Your task to perform on an android device: Find coffee shops on Maps Image 0: 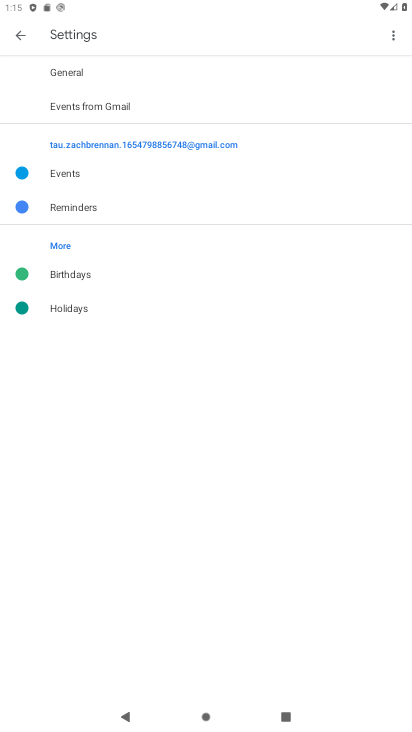
Step 0: press home button
Your task to perform on an android device: Find coffee shops on Maps Image 1: 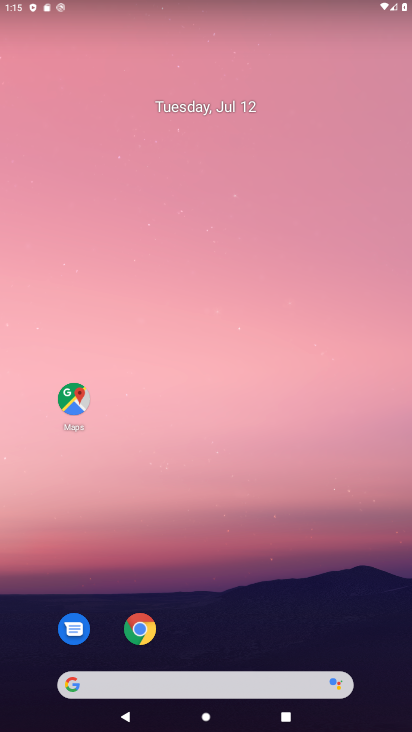
Step 1: click (69, 406)
Your task to perform on an android device: Find coffee shops on Maps Image 2: 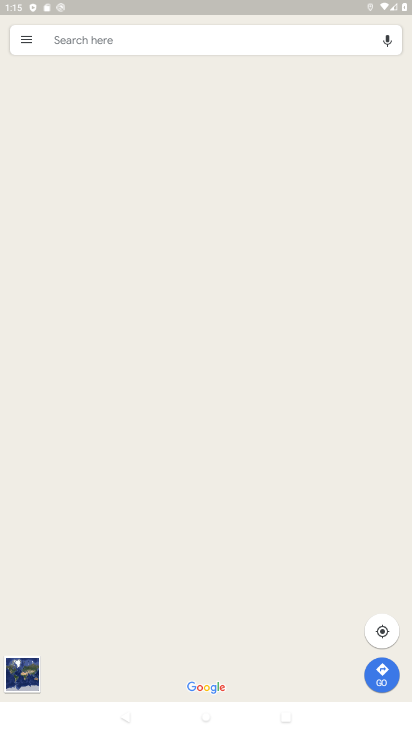
Step 2: click (226, 47)
Your task to perform on an android device: Find coffee shops on Maps Image 3: 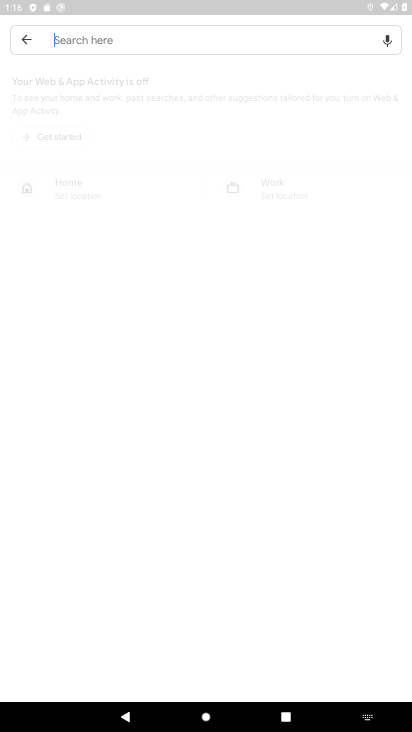
Step 3: click (26, 40)
Your task to perform on an android device: Find coffee shops on Maps Image 4: 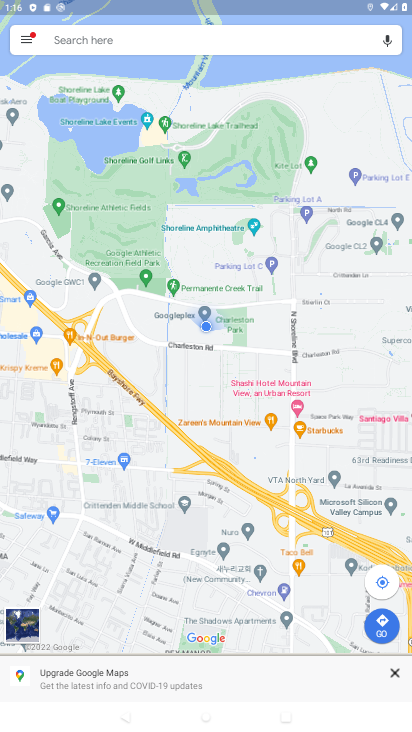
Step 4: click (137, 34)
Your task to perform on an android device: Find coffee shops on Maps Image 5: 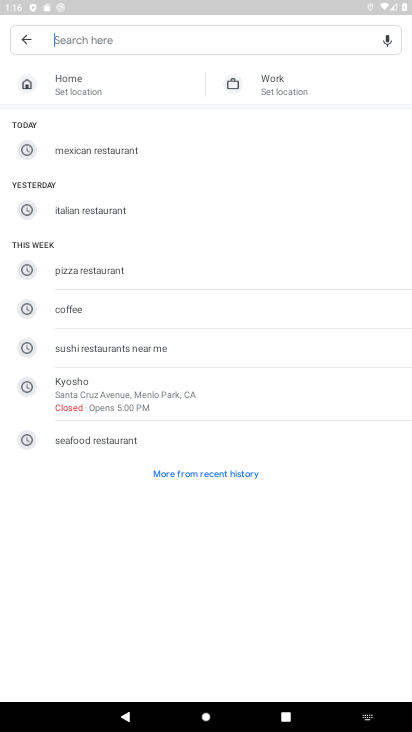
Step 5: type "coffee shops"
Your task to perform on an android device: Find coffee shops on Maps Image 6: 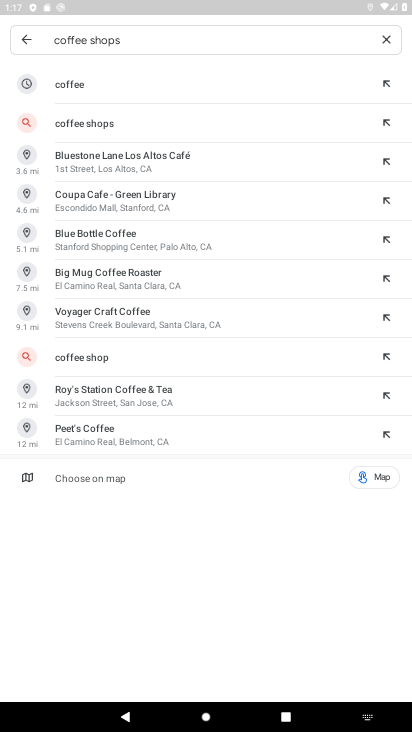
Step 6: click (106, 127)
Your task to perform on an android device: Find coffee shops on Maps Image 7: 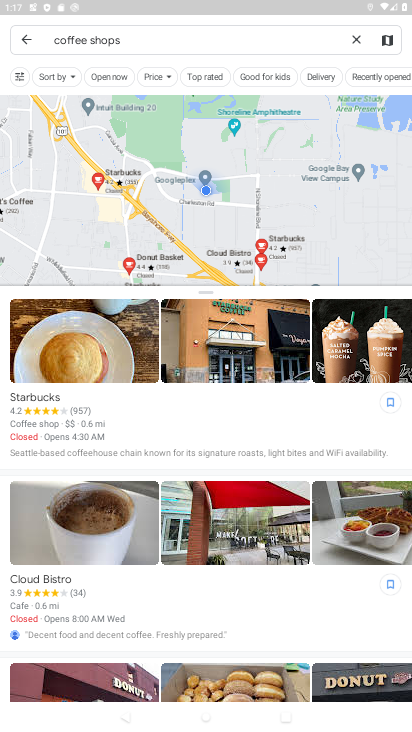
Step 7: task complete